Your task to perform on an android device: show emergency info Image 0: 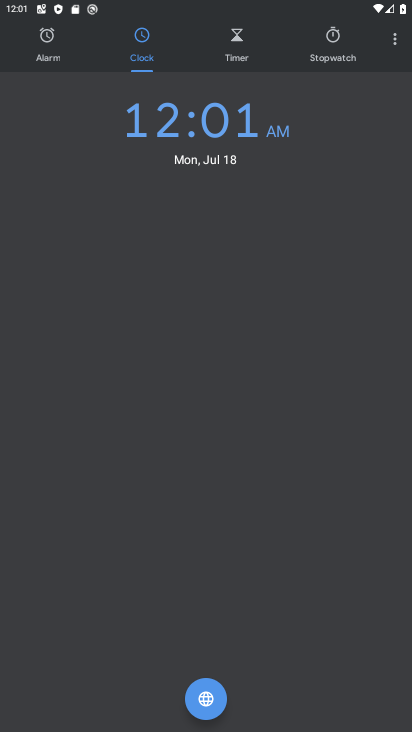
Step 0: press home button
Your task to perform on an android device: show emergency info Image 1: 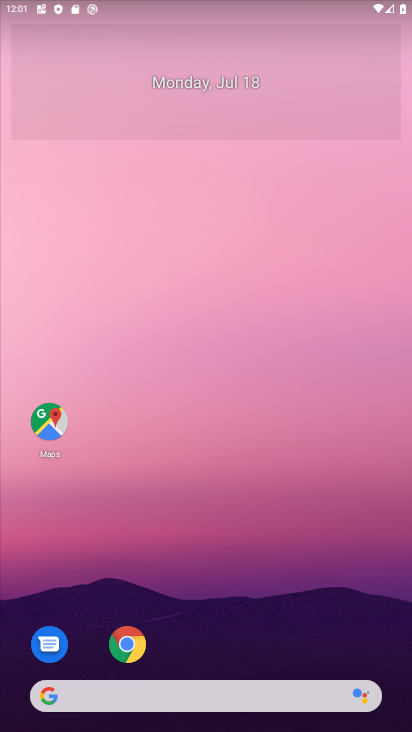
Step 1: click (265, 58)
Your task to perform on an android device: show emergency info Image 2: 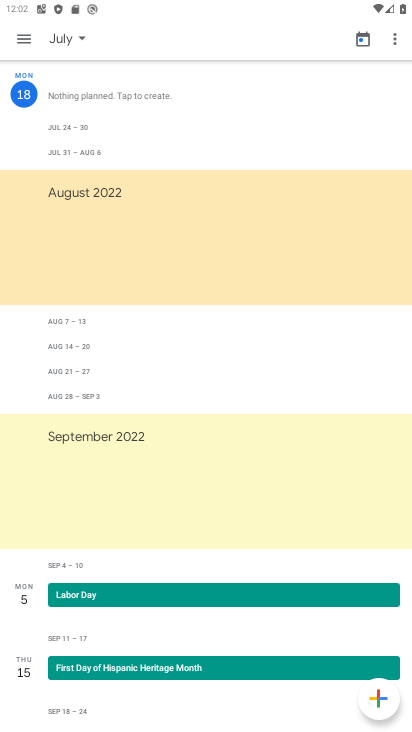
Step 2: press home button
Your task to perform on an android device: show emergency info Image 3: 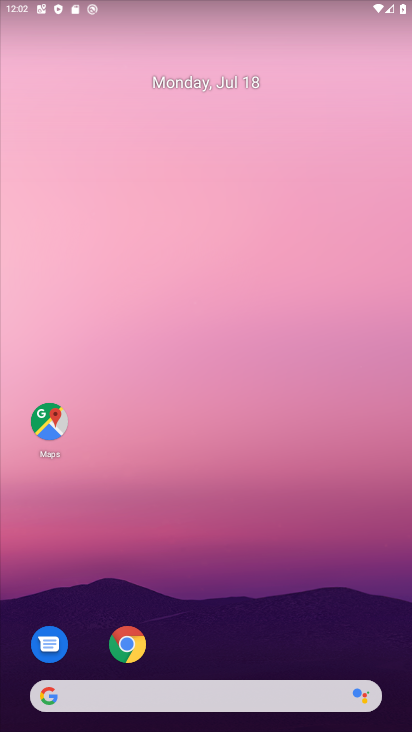
Step 3: drag from (243, 562) to (234, 52)
Your task to perform on an android device: show emergency info Image 4: 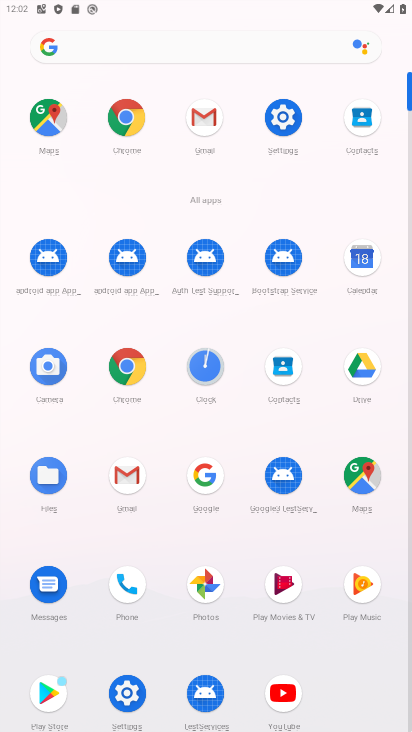
Step 4: click (276, 122)
Your task to perform on an android device: show emergency info Image 5: 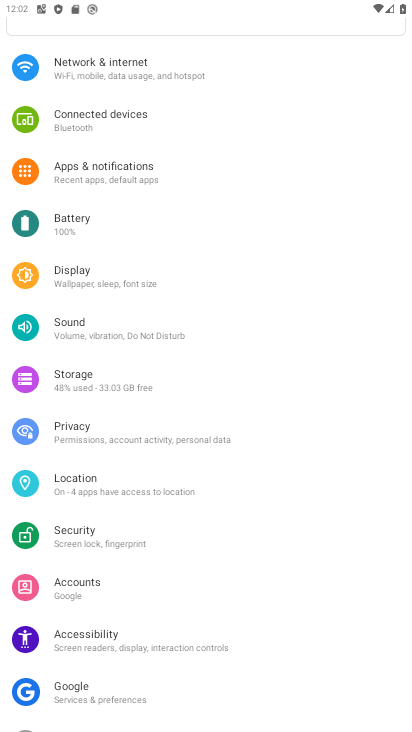
Step 5: drag from (185, 576) to (216, 141)
Your task to perform on an android device: show emergency info Image 6: 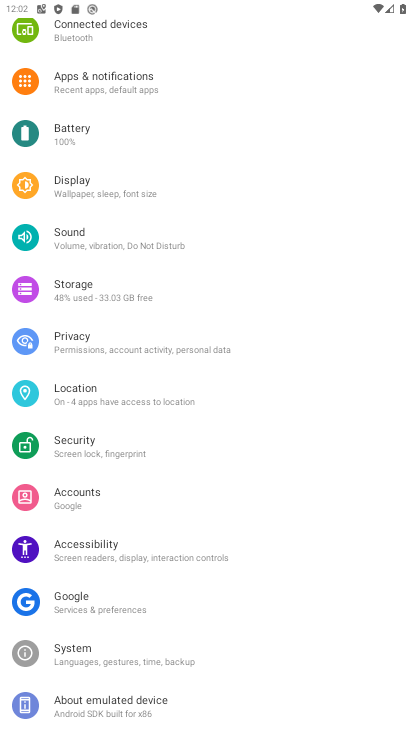
Step 6: click (111, 696)
Your task to perform on an android device: show emergency info Image 7: 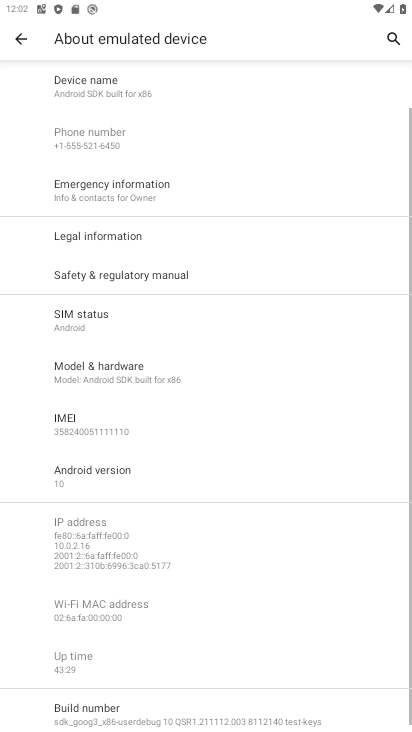
Step 7: drag from (186, 628) to (260, 171)
Your task to perform on an android device: show emergency info Image 8: 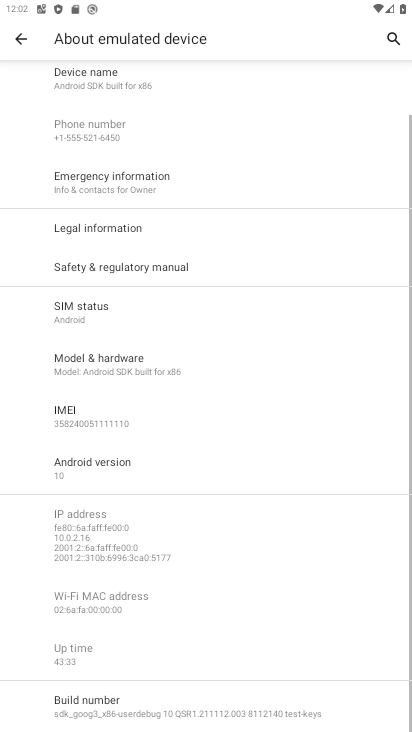
Step 8: click (117, 186)
Your task to perform on an android device: show emergency info Image 9: 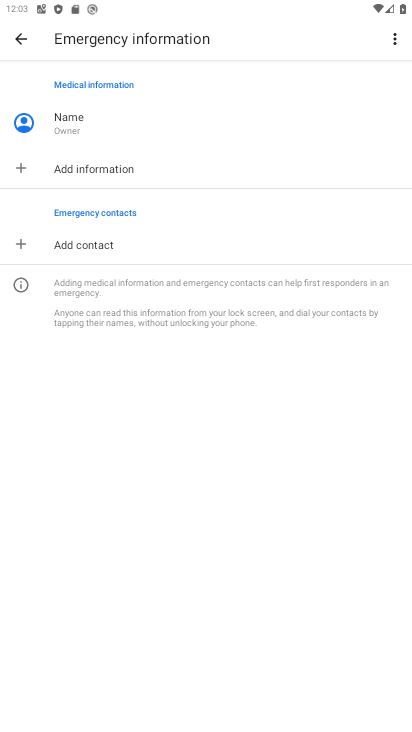
Step 9: task complete